Your task to perform on an android device: Open Yahoo.com Image 0: 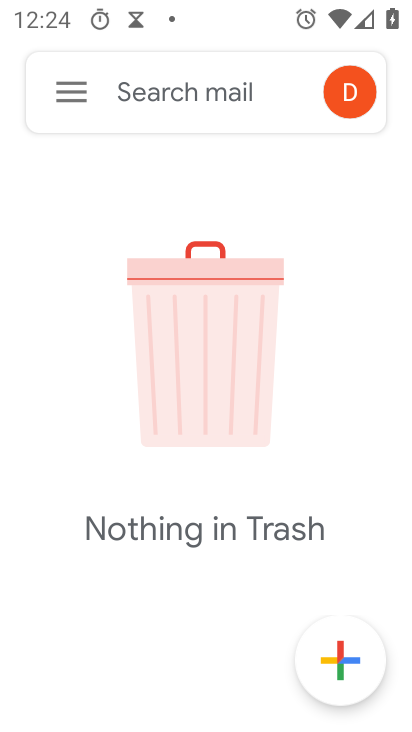
Step 0: press home button
Your task to perform on an android device: Open Yahoo.com Image 1: 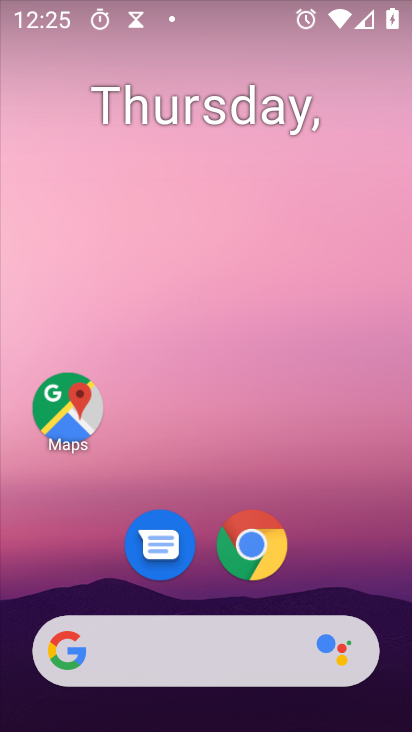
Step 1: click (246, 560)
Your task to perform on an android device: Open Yahoo.com Image 2: 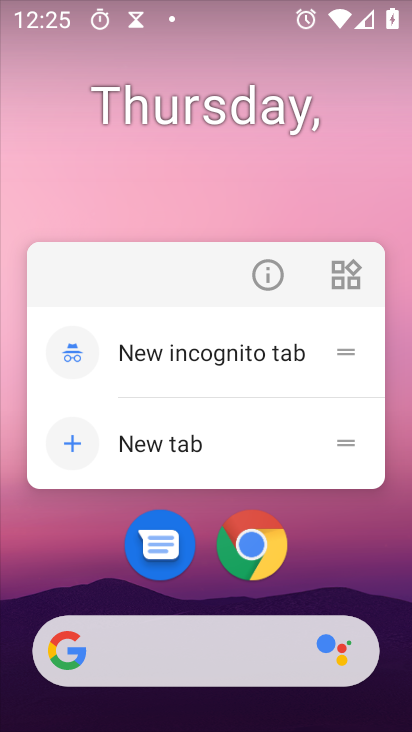
Step 2: click (257, 536)
Your task to perform on an android device: Open Yahoo.com Image 3: 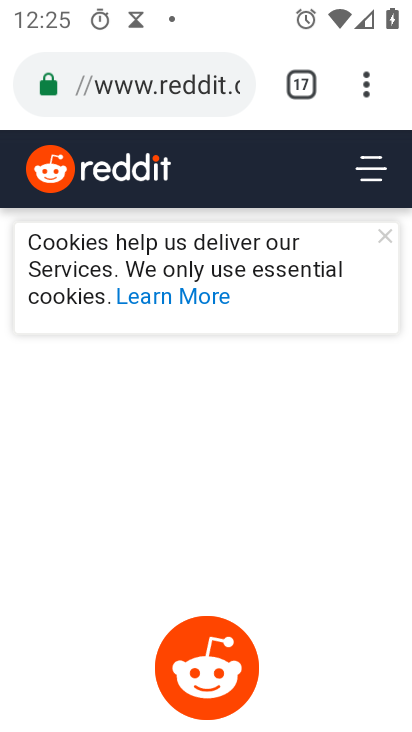
Step 3: drag from (365, 101) to (229, 184)
Your task to perform on an android device: Open Yahoo.com Image 4: 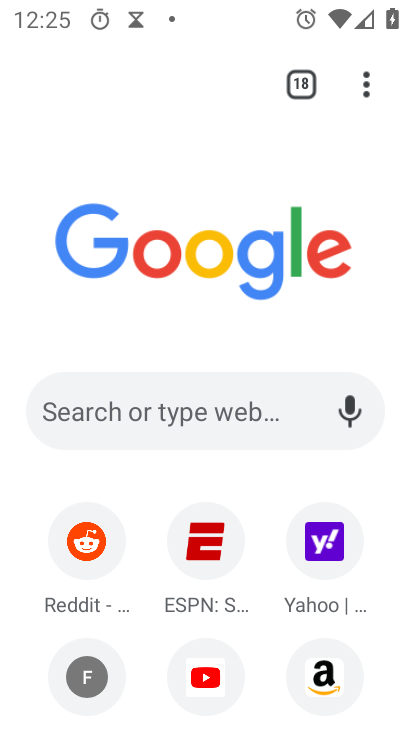
Step 4: click (323, 553)
Your task to perform on an android device: Open Yahoo.com Image 5: 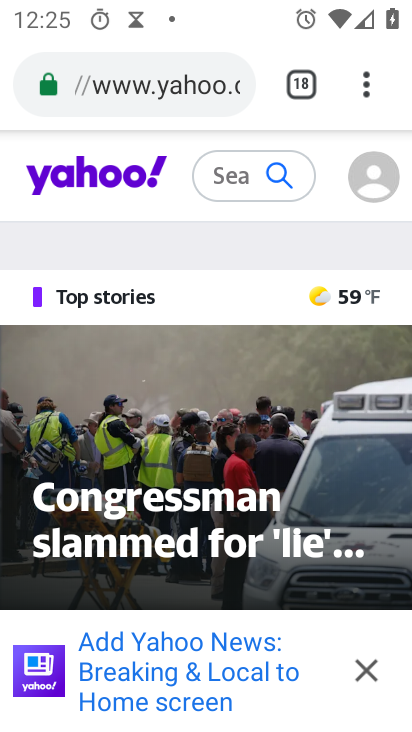
Step 5: task complete